Your task to perform on an android device: turn on javascript in the chrome app Image 0: 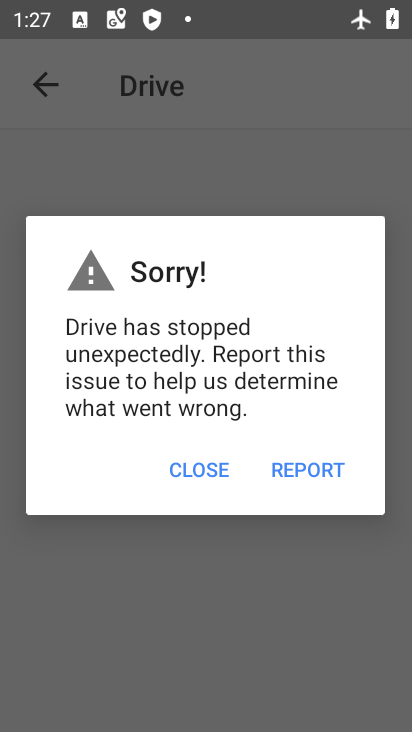
Step 0: press home button
Your task to perform on an android device: turn on javascript in the chrome app Image 1: 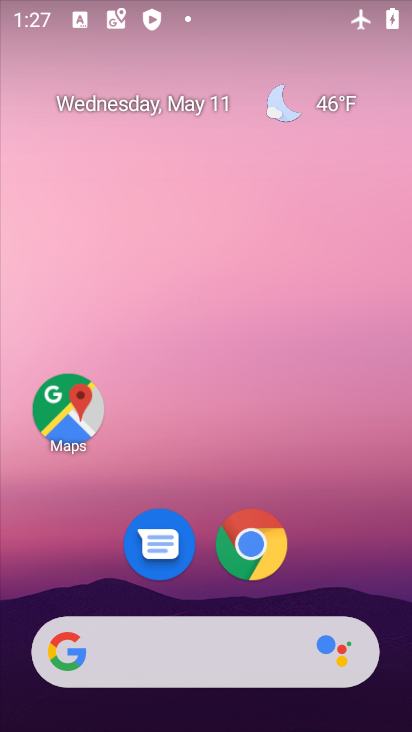
Step 1: click (251, 544)
Your task to perform on an android device: turn on javascript in the chrome app Image 2: 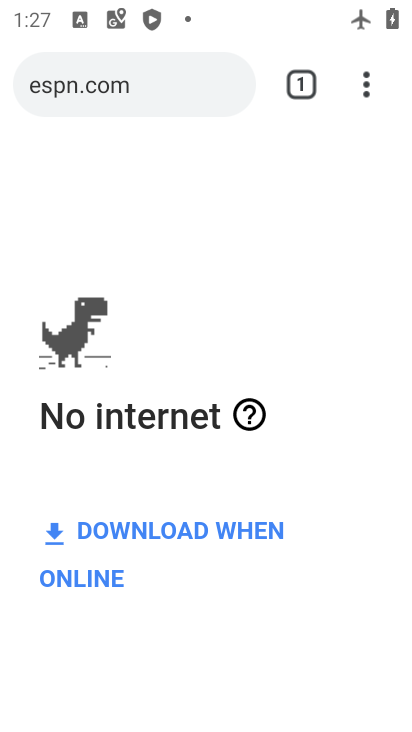
Step 2: click (364, 92)
Your task to perform on an android device: turn on javascript in the chrome app Image 3: 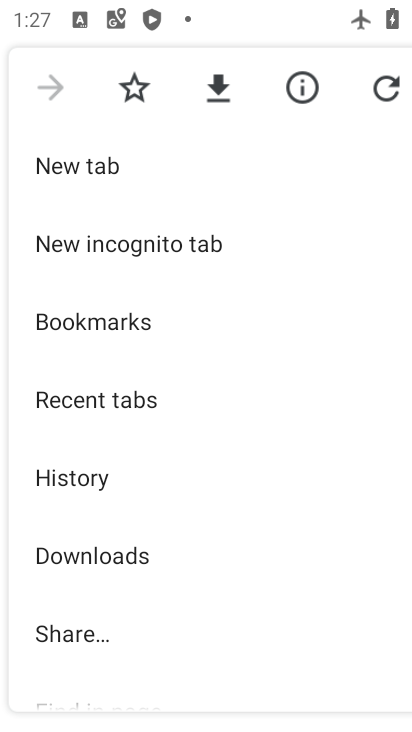
Step 3: drag from (167, 620) to (296, 173)
Your task to perform on an android device: turn on javascript in the chrome app Image 4: 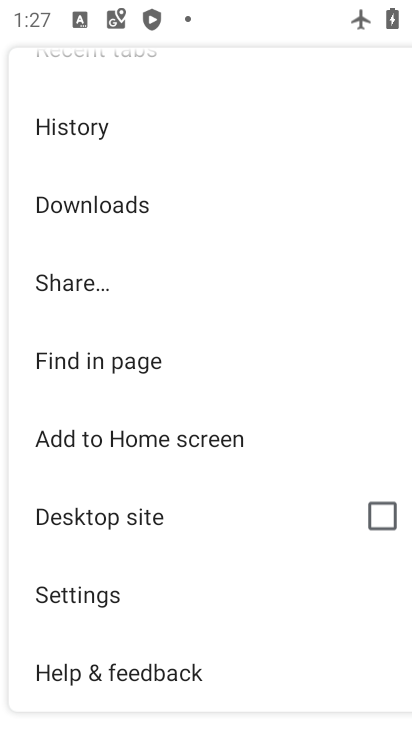
Step 4: click (71, 594)
Your task to perform on an android device: turn on javascript in the chrome app Image 5: 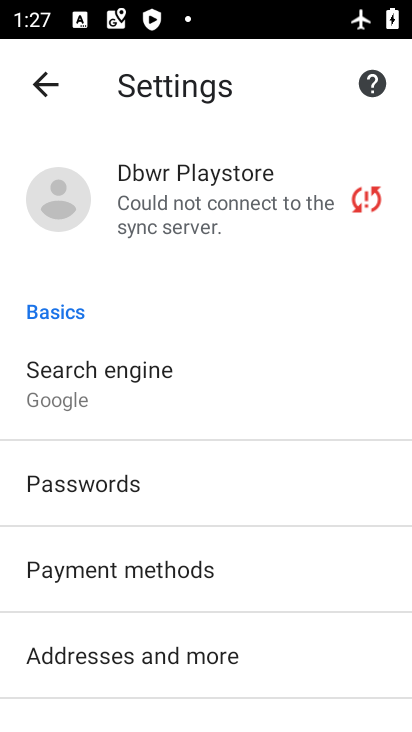
Step 5: drag from (301, 679) to (280, 342)
Your task to perform on an android device: turn on javascript in the chrome app Image 6: 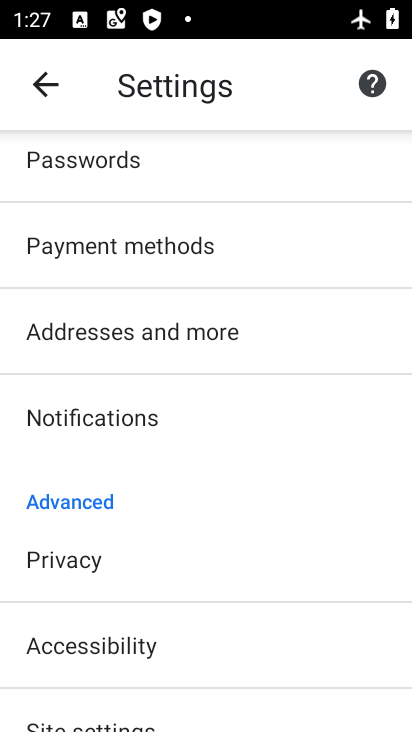
Step 6: drag from (206, 623) to (291, 257)
Your task to perform on an android device: turn on javascript in the chrome app Image 7: 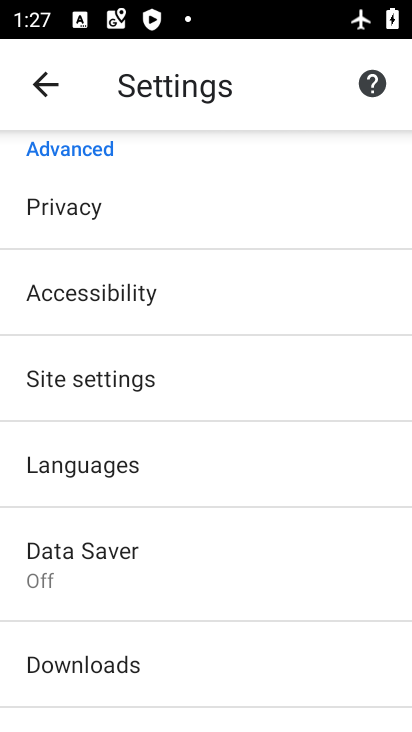
Step 7: click (74, 381)
Your task to perform on an android device: turn on javascript in the chrome app Image 8: 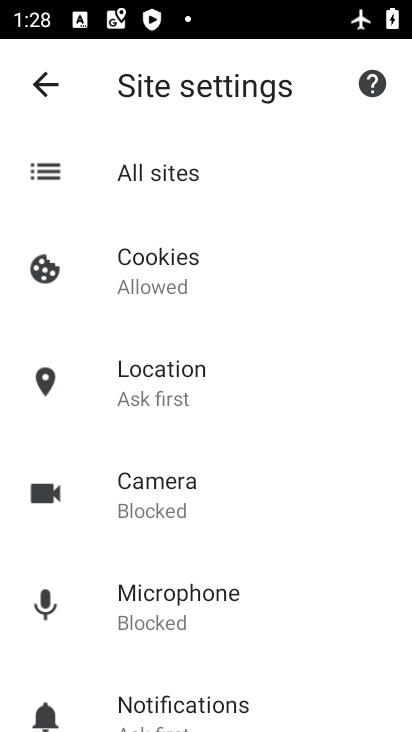
Step 8: drag from (306, 674) to (274, 190)
Your task to perform on an android device: turn on javascript in the chrome app Image 9: 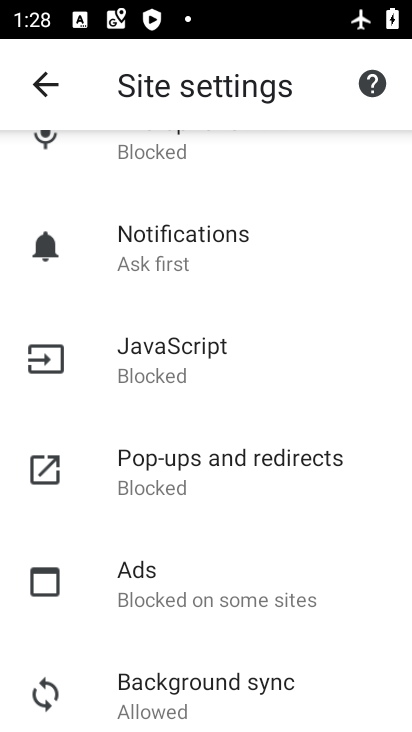
Step 9: click (147, 372)
Your task to perform on an android device: turn on javascript in the chrome app Image 10: 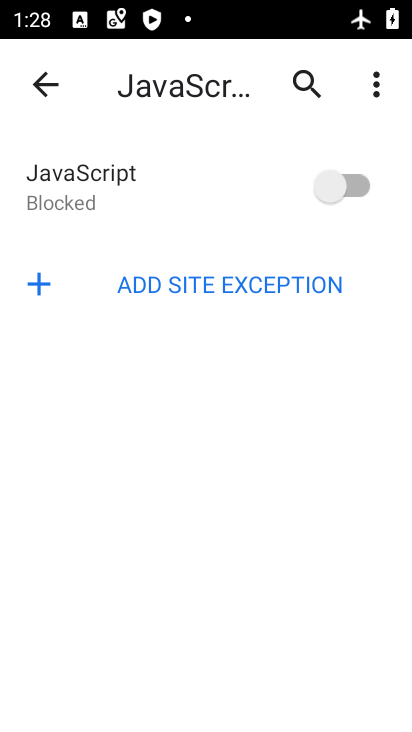
Step 10: click (365, 184)
Your task to perform on an android device: turn on javascript in the chrome app Image 11: 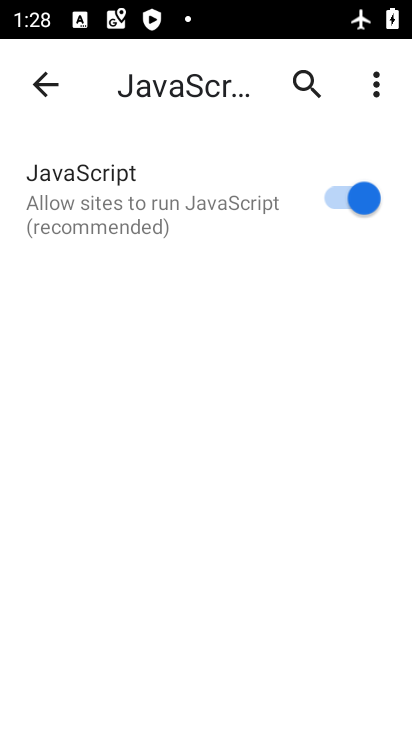
Step 11: task complete